Your task to perform on an android device: Open Google Maps and go to "Timeline" Image 0: 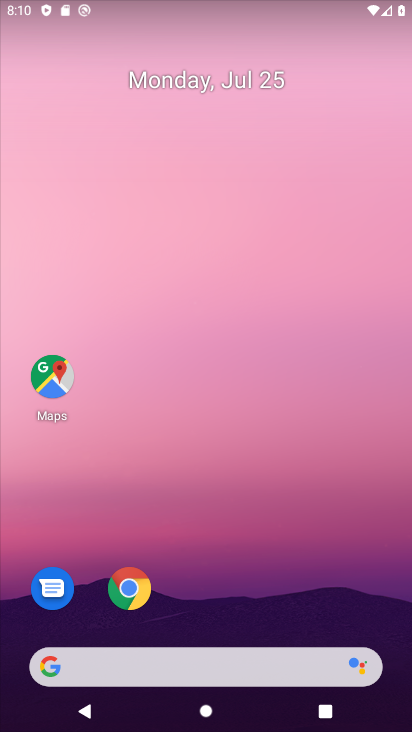
Step 0: press home button
Your task to perform on an android device: Open Google Maps and go to "Timeline" Image 1: 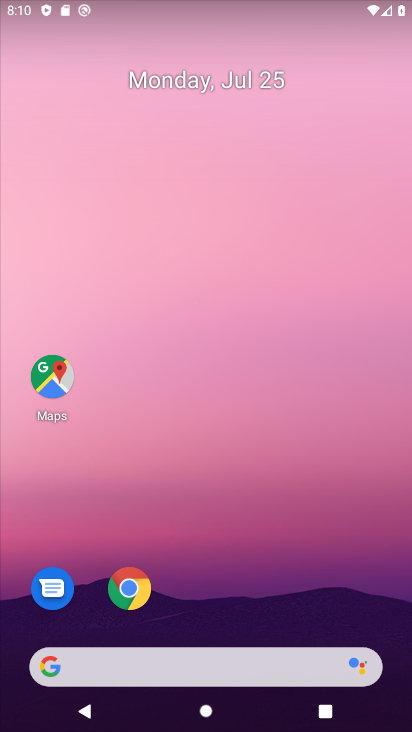
Step 1: drag from (360, 572) to (379, 118)
Your task to perform on an android device: Open Google Maps and go to "Timeline" Image 2: 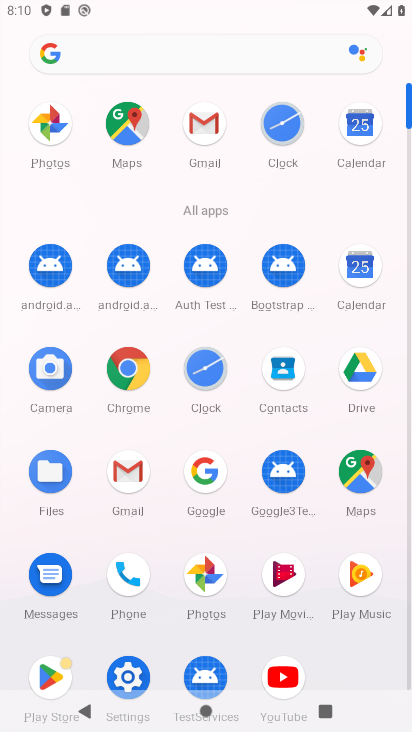
Step 2: click (358, 470)
Your task to perform on an android device: Open Google Maps and go to "Timeline" Image 3: 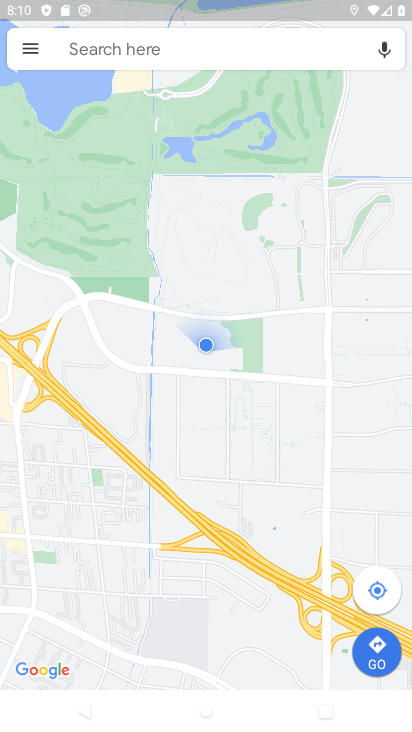
Step 3: click (29, 48)
Your task to perform on an android device: Open Google Maps and go to "Timeline" Image 4: 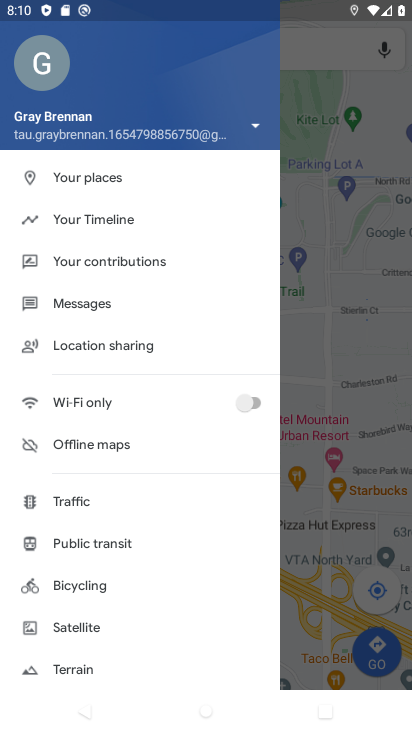
Step 4: click (106, 220)
Your task to perform on an android device: Open Google Maps and go to "Timeline" Image 5: 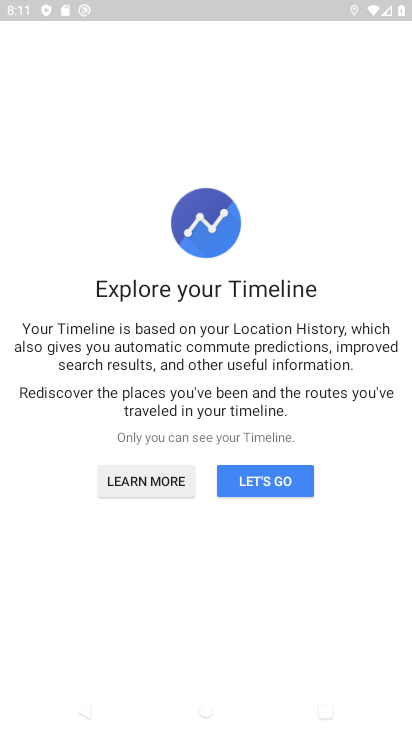
Step 5: task complete